Your task to perform on an android device: remove spam from my inbox in the gmail app Image 0: 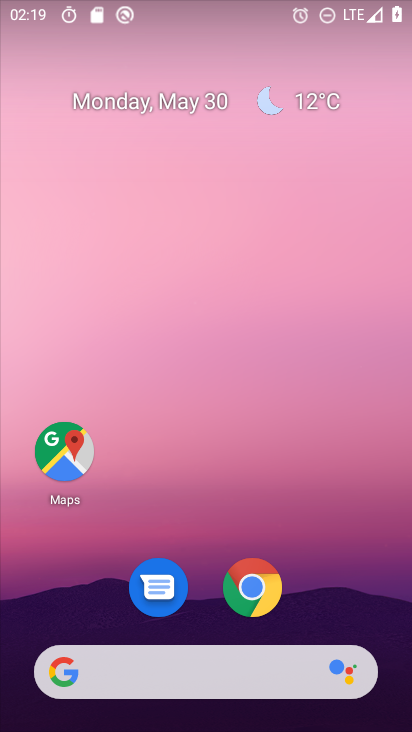
Step 0: drag from (326, 568) to (308, 37)
Your task to perform on an android device: remove spam from my inbox in the gmail app Image 1: 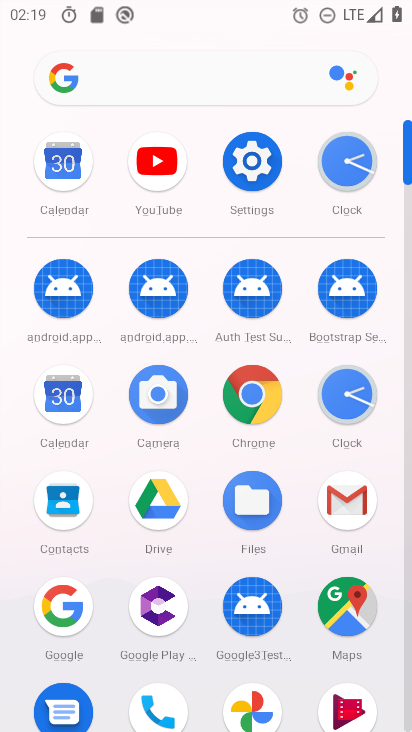
Step 1: click (347, 501)
Your task to perform on an android device: remove spam from my inbox in the gmail app Image 2: 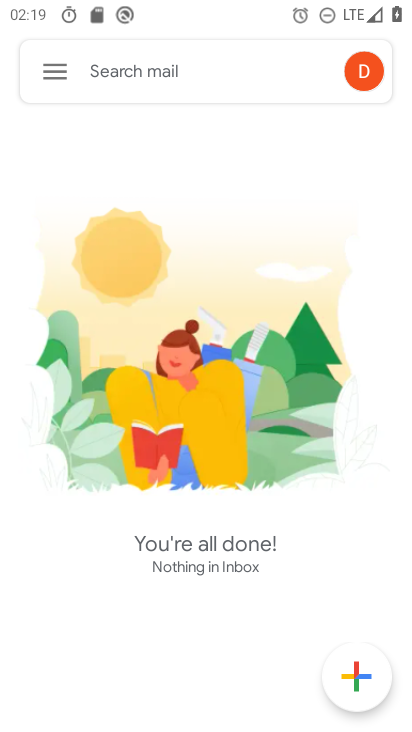
Step 2: click (59, 72)
Your task to perform on an android device: remove spam from my inbox in the gmail app Image 3: 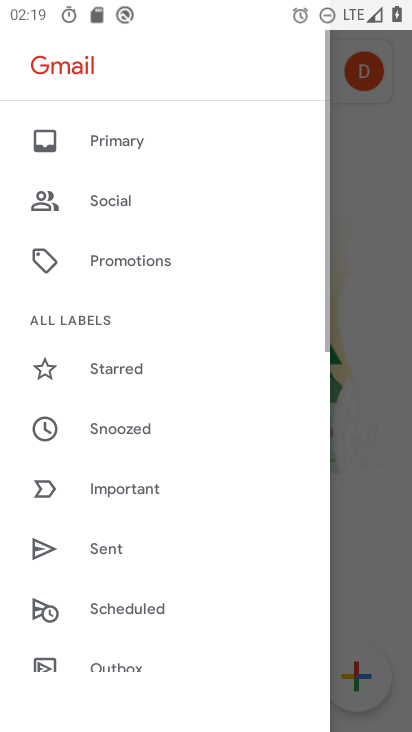
Step 3: drag from (131, 174) to (171, 602)
Your task to perform on an android device: remove spam from my inbox in the gmail app Image 4: 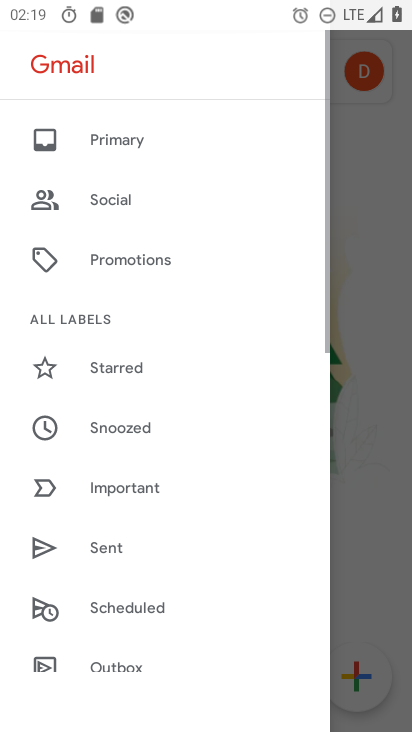
Step 4: click (109, 138)
Your task to perform on an android device: remove spam from my inbox in the gmail app Image 5: 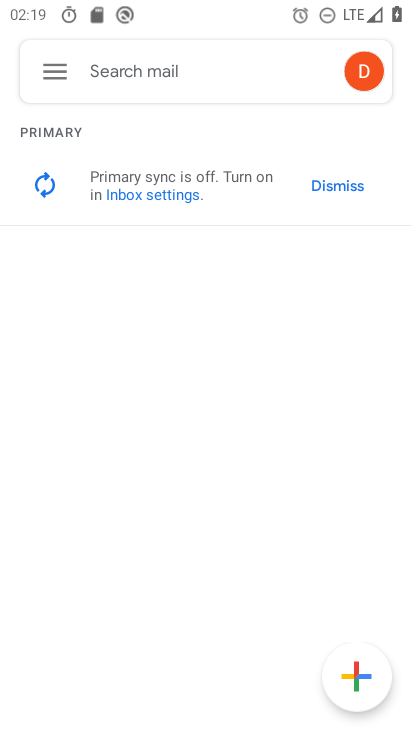
Step 5: task complete